Your task to perform on an android device: open the mobile data screen to see how much data has been used Image 0: 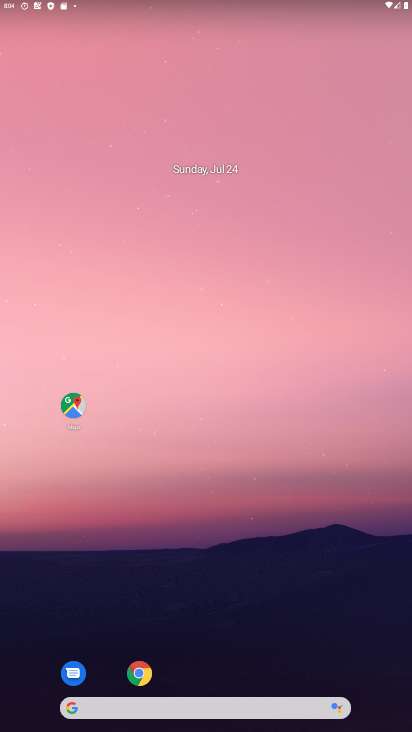
Step 0: drag from (192, 670) to (82, 18)
Your task to perform on an android device: open the mobile data screen to see how much data has been used Image 1: 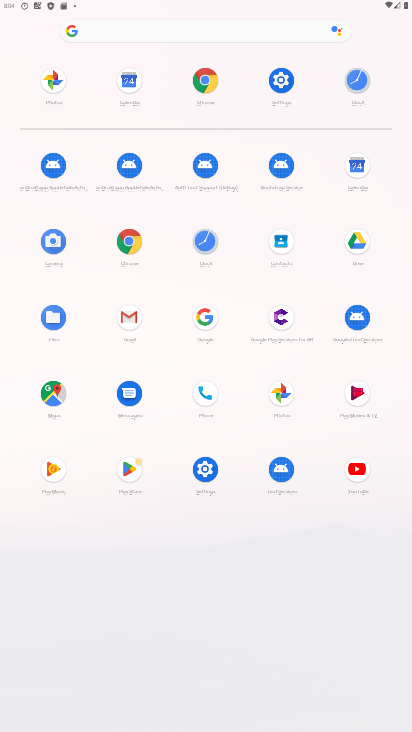
Step 1: drag from (183, 589) to (183, 358)
Your task to perform on an android device: open the mobile data screen to see how much data has been used Image 2: 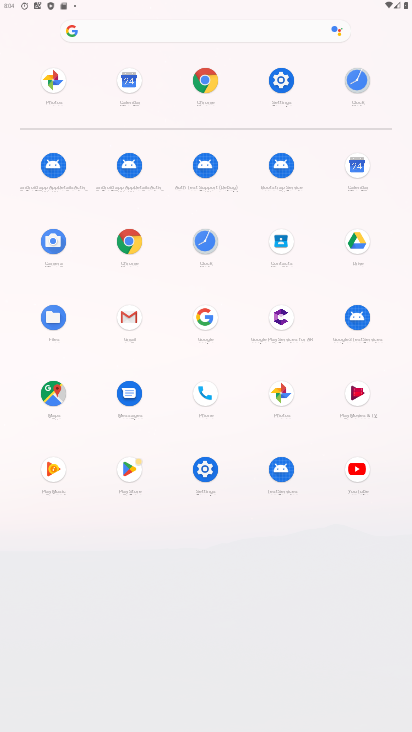
Step 2: click (287, 83)
Your task to perform on an android device: open the mobile data screen to see how much data has been used Image 3: 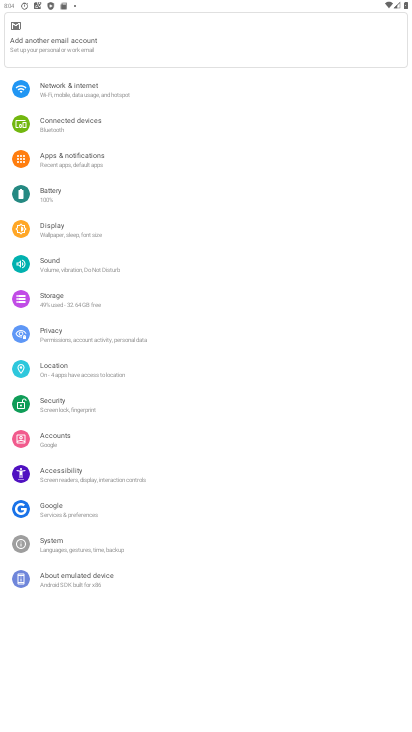
Step 3: click (130, 156)
Your task to perform on an android device: open the mobile data screen to see how much data has been used Image 4: 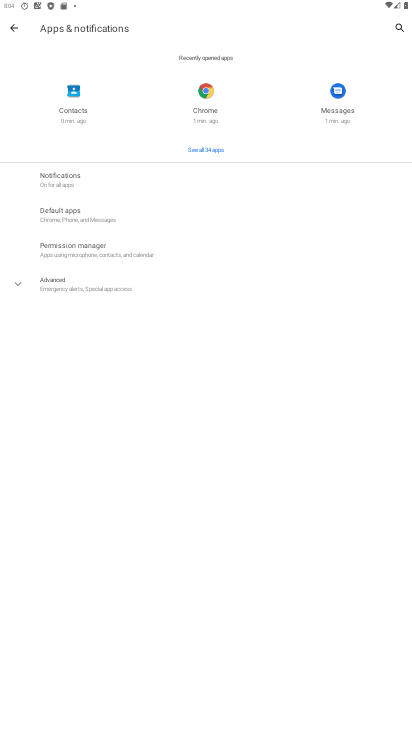
Step 4: click (106, 173)
Your task to perform on an android device: open the mobile data screen to see how much data has been used Image 5: 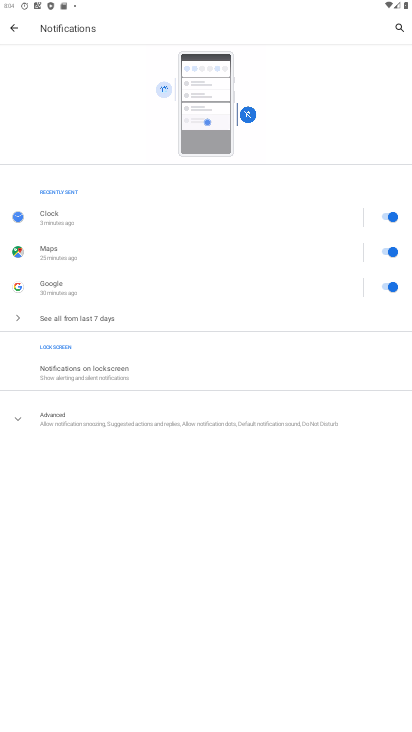
Step 5: click (93, 417)
Your task to perform on an android device: open the mobile data screen to see how much data has been used Image 6: 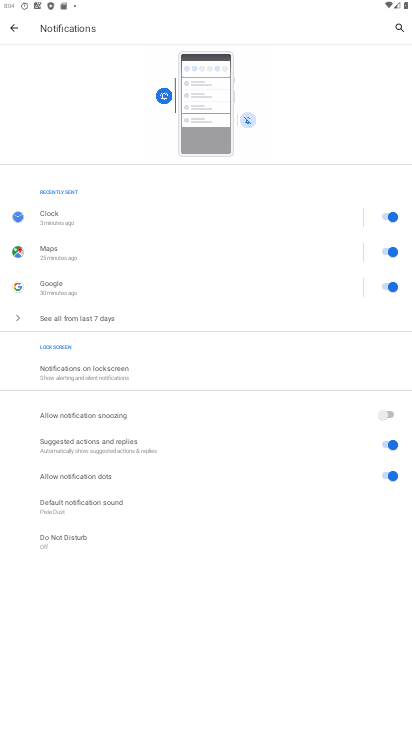
Step 6: drag from (120, 572) to (97, 373)
Your task to perform on an android device: open the mobile data screen to see how much data has been used Image 7: 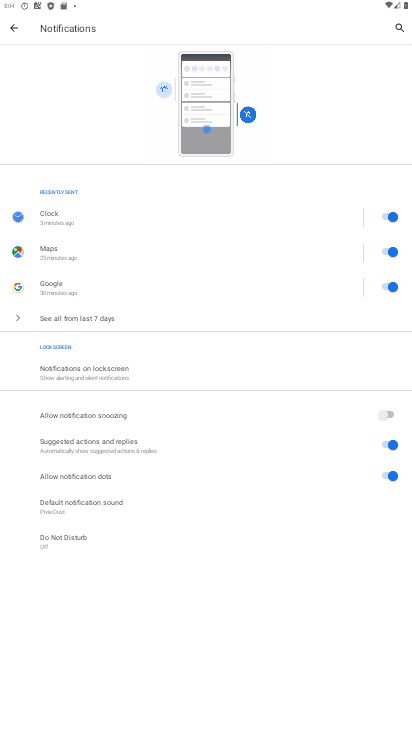
Step 7: click (20, 17)
Your task to perform on an android device: open the mobile data screen to see how much data has been used Image 8: 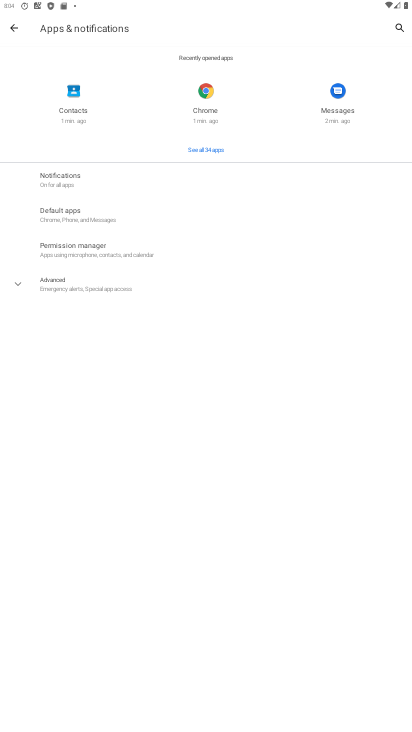
Step 8: click (13, 27)
Your task to perform on an android device: open the mobile data screen to see how much data has been used Image 9: 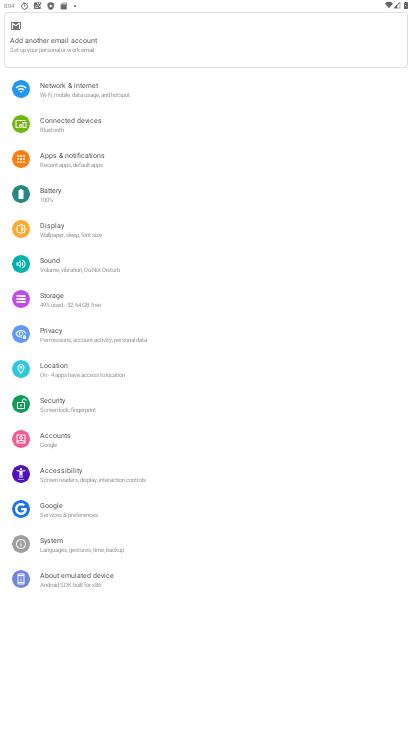
Step 9: click (107, 86)
Your task to perform on an android device: open the mobile data screen to see how much data has been used Image 10: 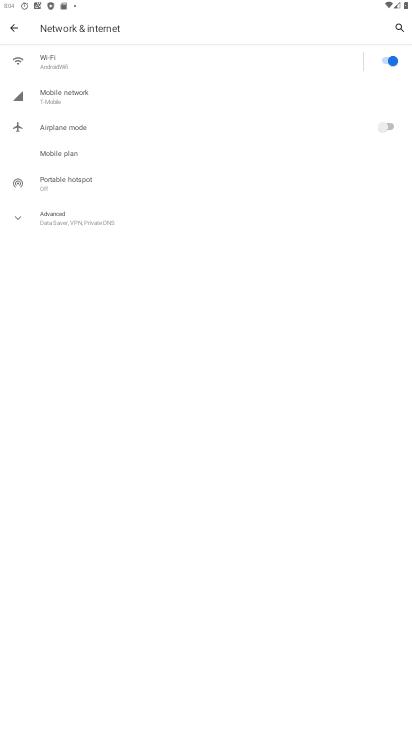
Step 10: click (62, 98)
Your task to perform on an android device: open the mobile data screen to see how much data has been used Image 11: 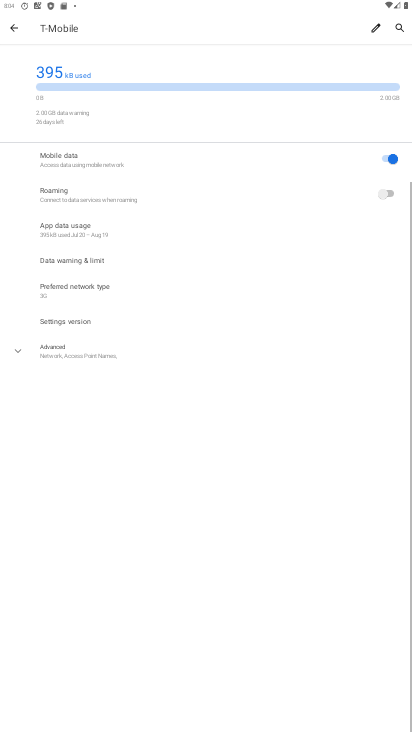
Step 11: task complete